Your task to perform on an android device: Open the phone app and click the voicemail tab. Image 0: 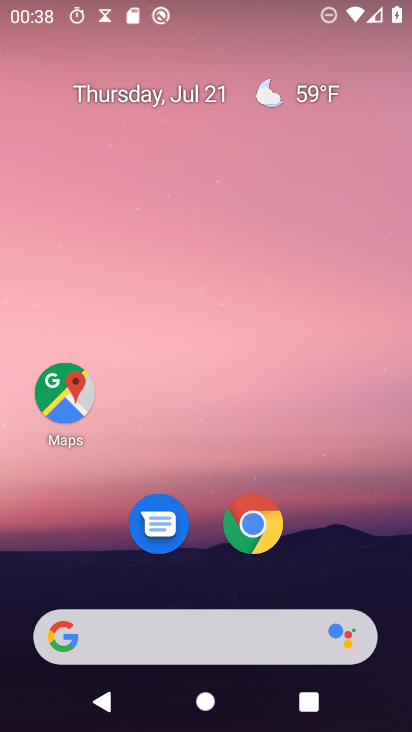
Step 0: drag from (189, 641) to (329, 118)
Your task to perform on an android device: Open the phone app and click the voicemail tab. Image 1: 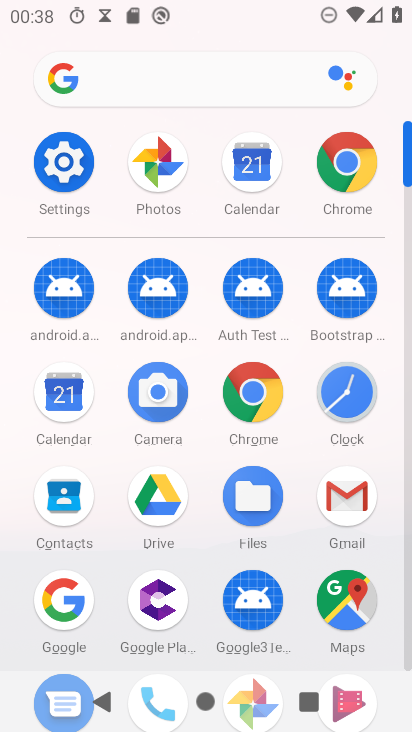
Step 1: drag from (191, 616) to (297, 100)
Your task to perform on an android device: Open the phone app and click the voicemail tab. Image 2: 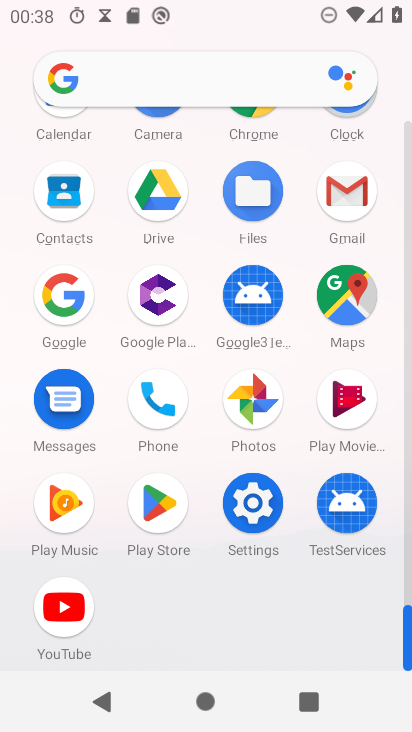
Step 2: click (157, 403)
Your task to perform on an android device: Open the phone app and click the voicemail tab. Image 3: 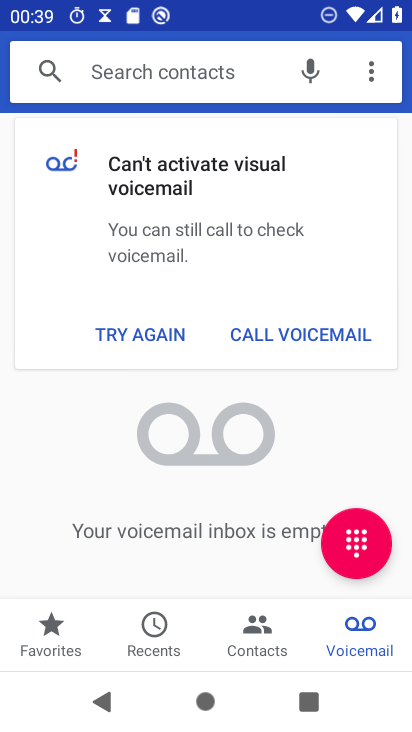
Step 3: task complete